Your task to perform on an android device: toggle airplane mode Image 0: 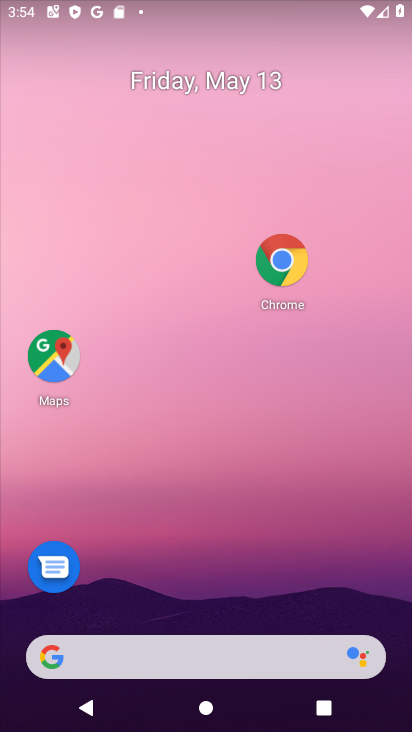
Step 0: drag from (368, 612) to (52, 210)
Your task to perform on an android device: toggle airplane mode Image 1: 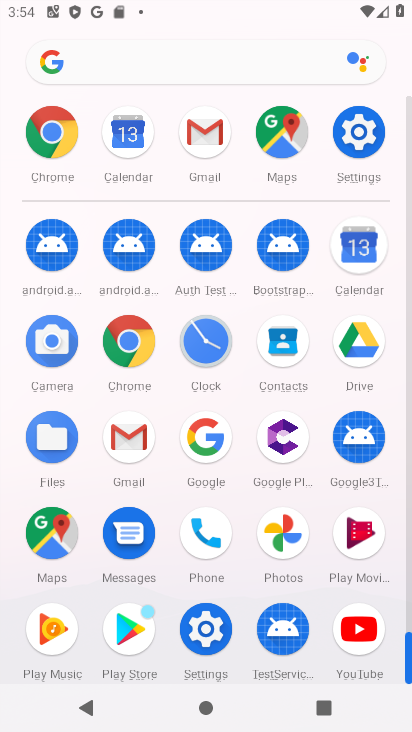
Step 1: click (368, 128)
Your task to perform on an android device: toggle airplane mode Image 2: 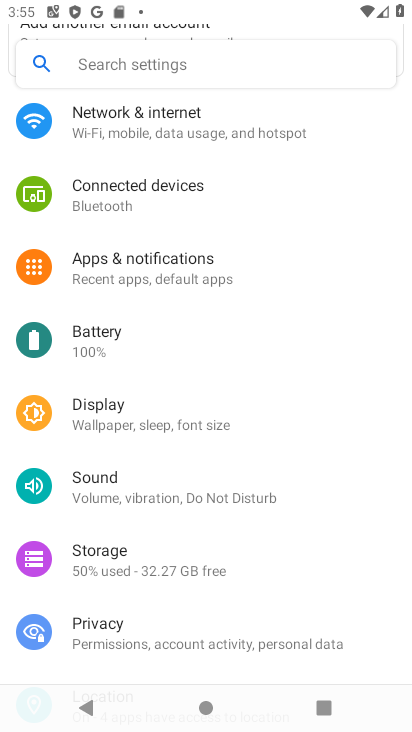
Step 2: click (160, 128)
Your task to perform on an android device: toggle airplane mode Image 3: 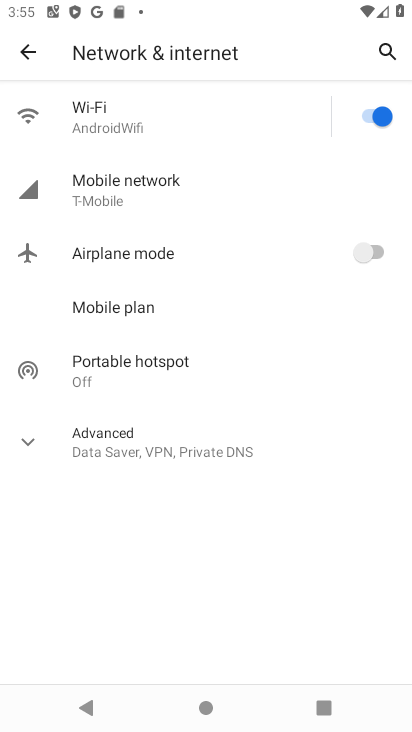
Step 3: click (359, 253)
Your task to perform on an android device: toggle airplane mode Image 4: 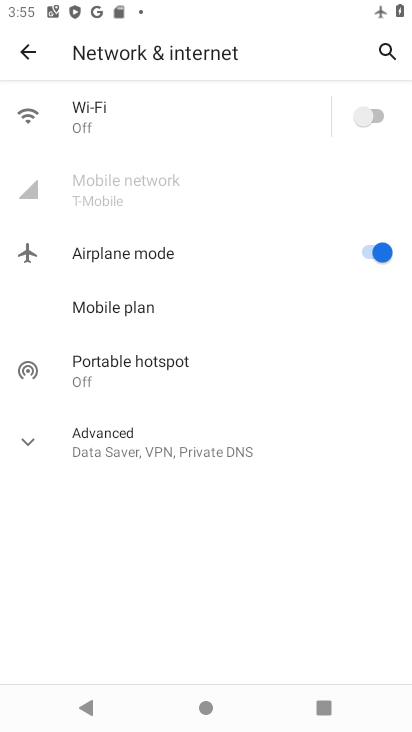
Step 4: task complete